Your task to perform on an android device: turn off location Image 0: 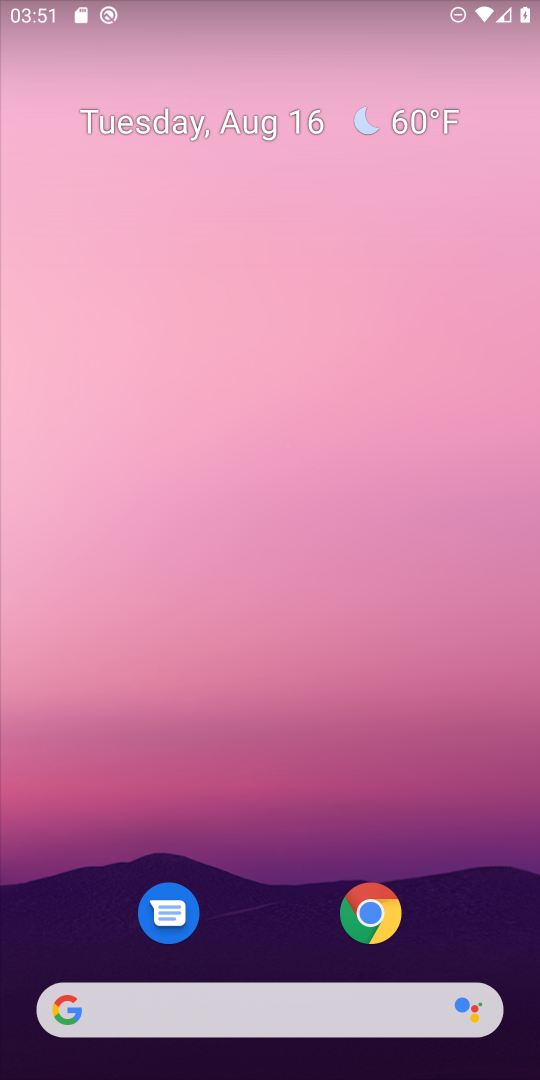
Step 0: drag from (493, 737) to (477, 215)
Your task to perform on an android device: turn off location Image 1: 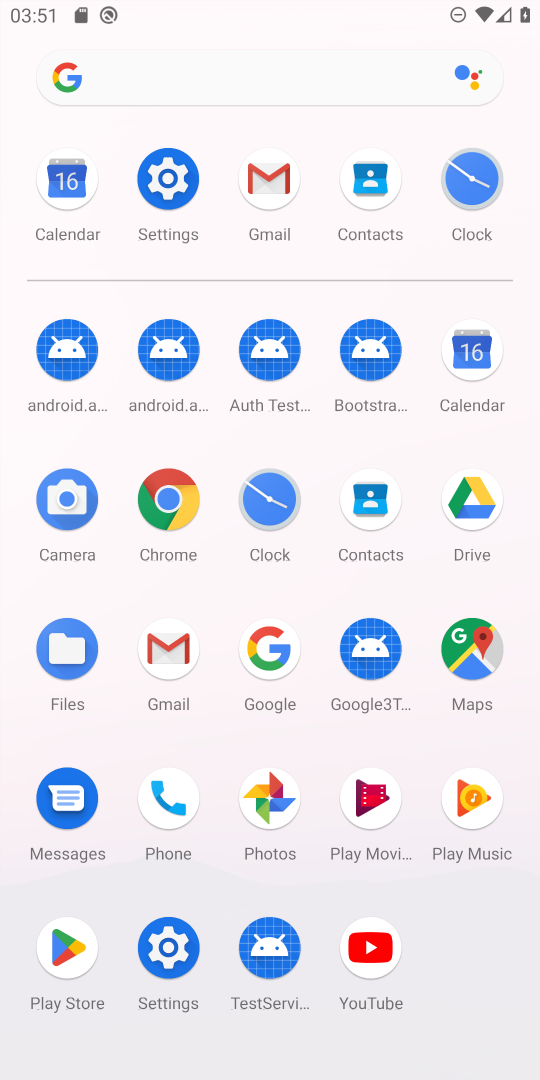
Step 1: click (165, 951)
Your task to perform on an android device: turn off location Image 2: 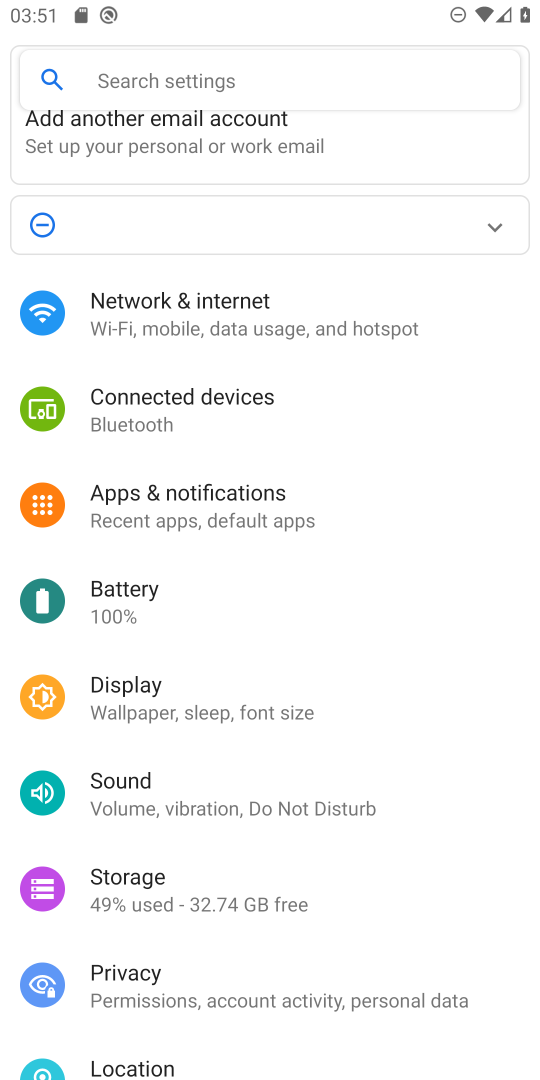
Step 2: drag from (433, 896) to (463, 419)
Your task to perform on an android device: turn off location Image 3: 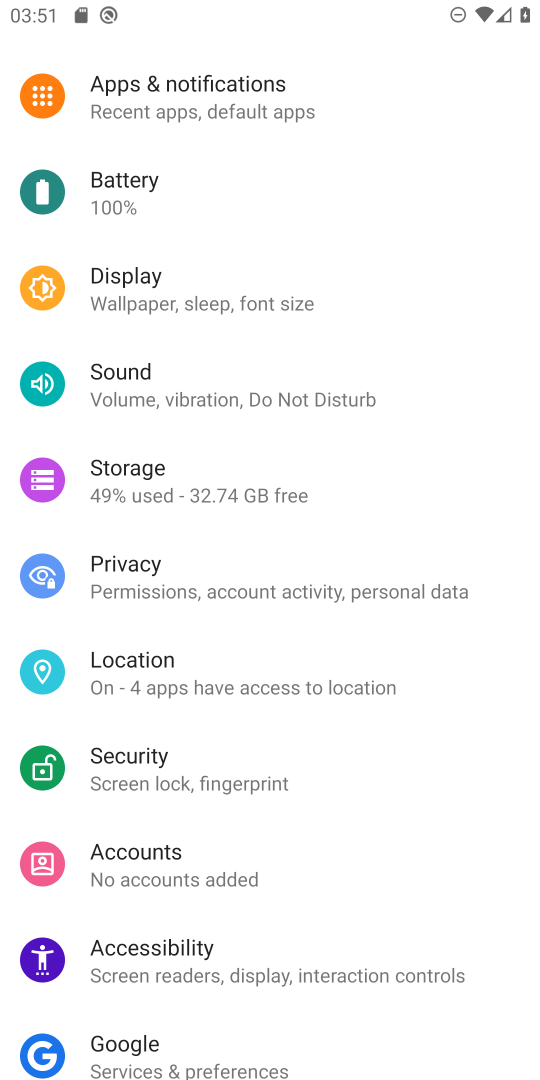
Step 3: click (151, 674)
Your task to perform on an android device: turn off location Image 4: 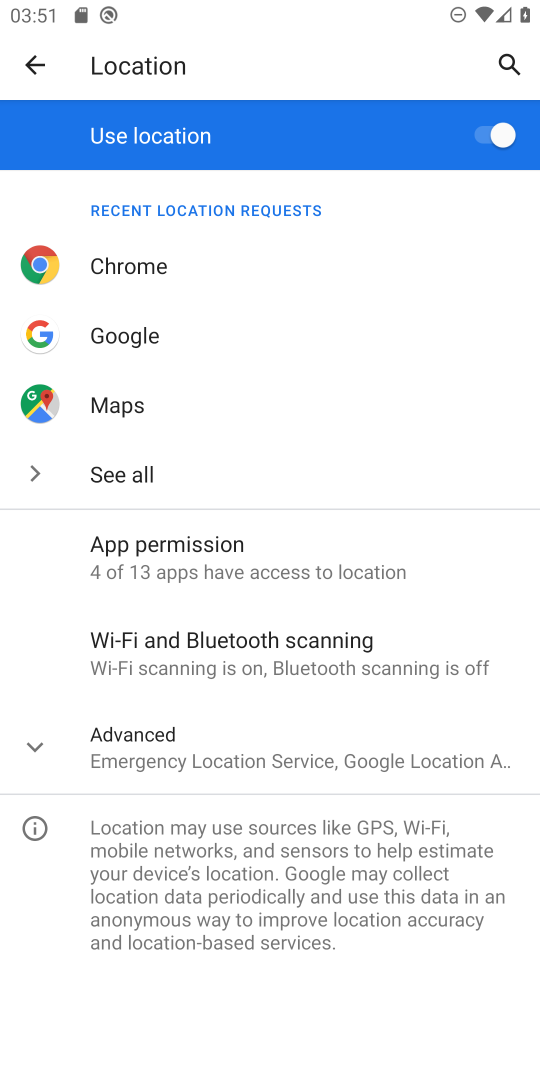
Step 4: click (479, 133)
Your task to perform on an android device: turn off location Image 5: 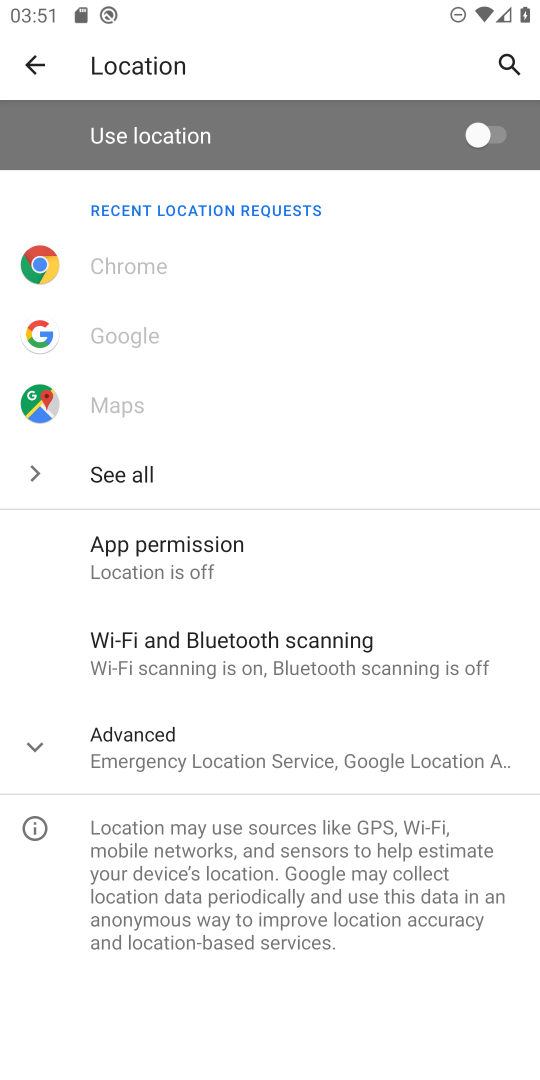
Step 5: task complete